Your task to perform on an android device: Go to Android settings Image 0: 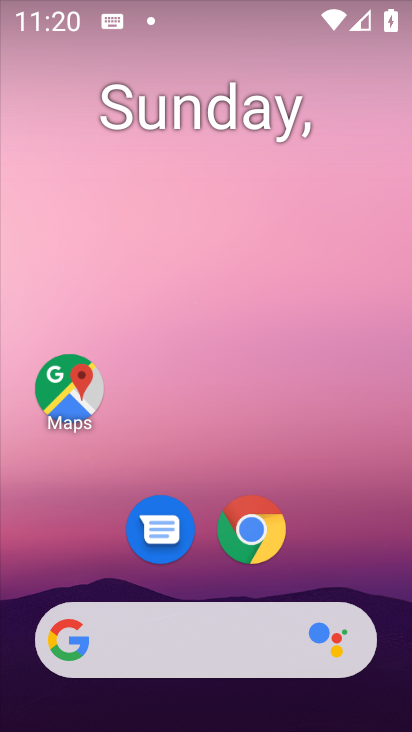
Step 0: drag from (351, 549) to (207, 76)
Your task to perform on an android device: Go to Android settings Image 1: 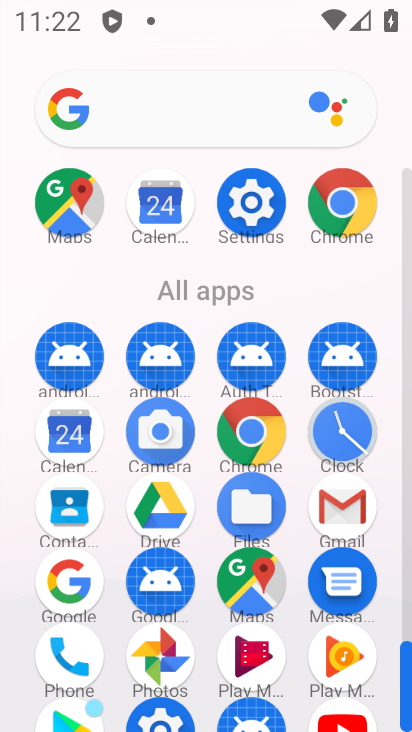
Step 1: click (245, 233)
Your task to perform on an android device: Go to Android settings Image 2: 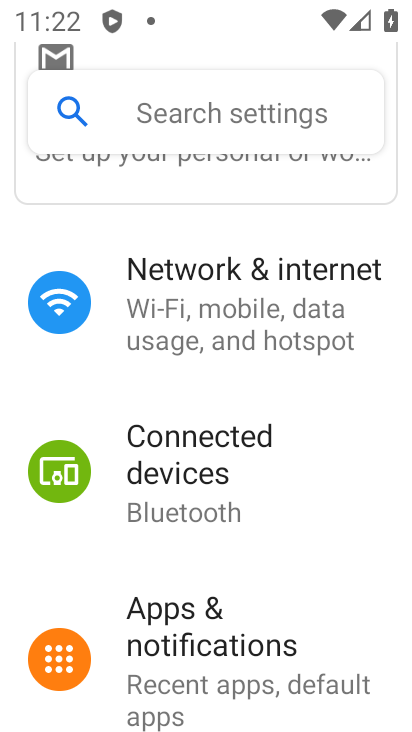
Step 2: drag from (222, 663) to (271, 137)
Your task to perform on an android device: Go to Android settings Image 3: 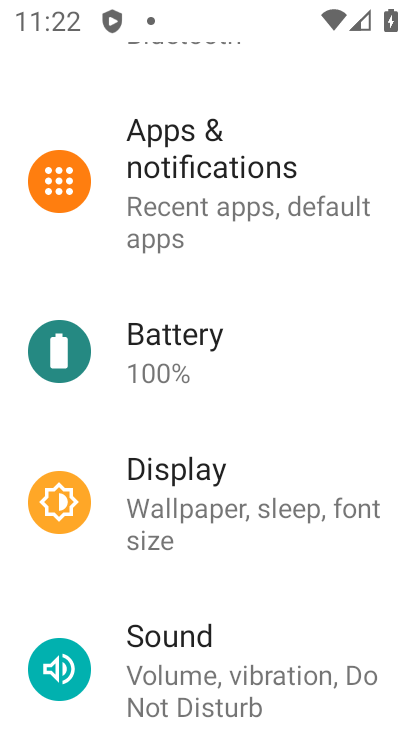
Step 3: drag from (285, 584) to (324, 91)
Your task to perform on an android device: Go to Android settings Image 4: 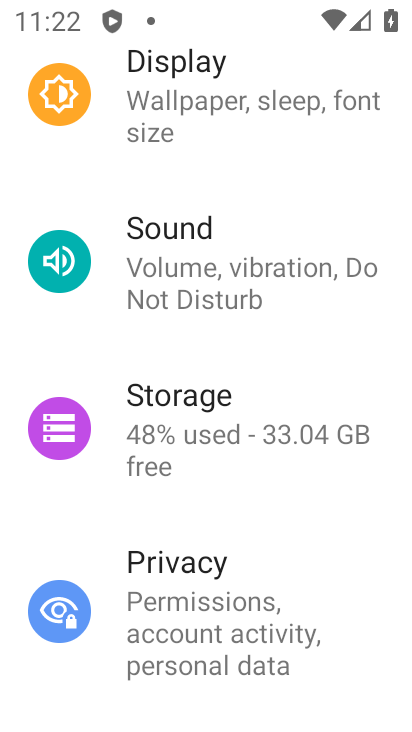
Step 4: drag from (202, 619) to (270, 90)
Your task to perform on an android device: Go to Android settings Image 5: 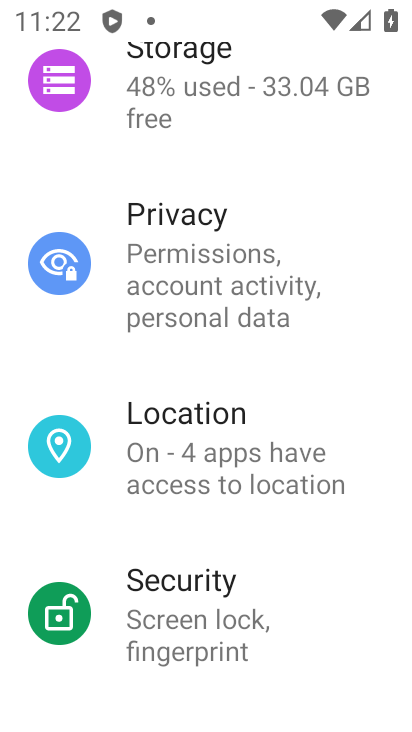
Step 5: drag from (212, 630) to (251, 10)
Your task to perform on an android device: Go to Android settings Image 6: 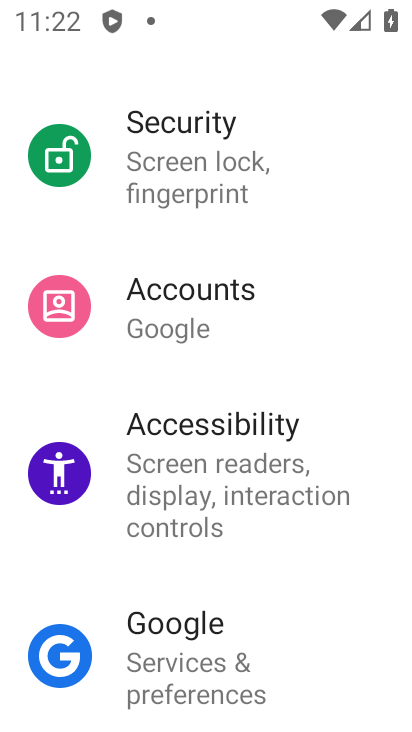
Step 6: drag from (196, 627) to (284, 82)
Your task to perform on an android device: Go to Android settings Image 7: 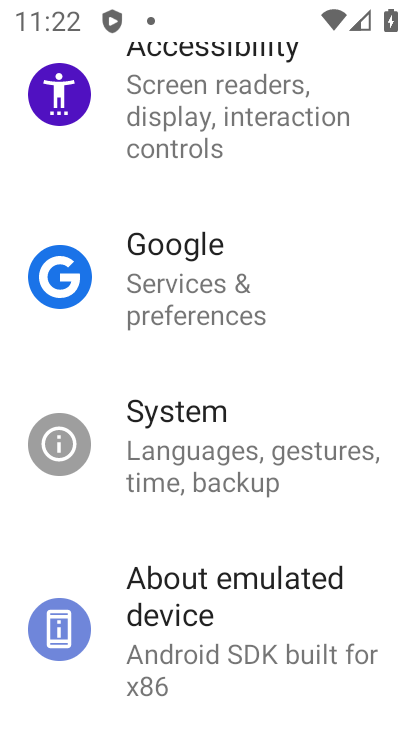
Step 7: click (250, 643)
Your task to perform on an android device: Go to Android settings Image 8: 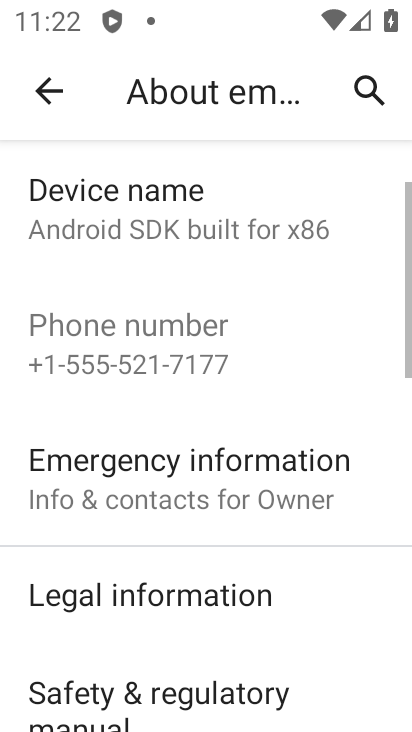
Step 8: drag from (164, 618) to (215, 213)
Your task to perform on an android device: Go to Android settings Image 9: 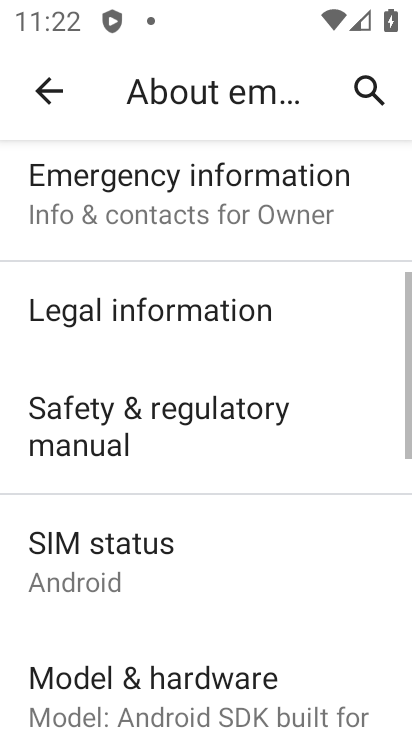
Step 9: drag from (170, 604) to (259, 194)
Your task to perform on an android device: Go to Android settings Image 10: 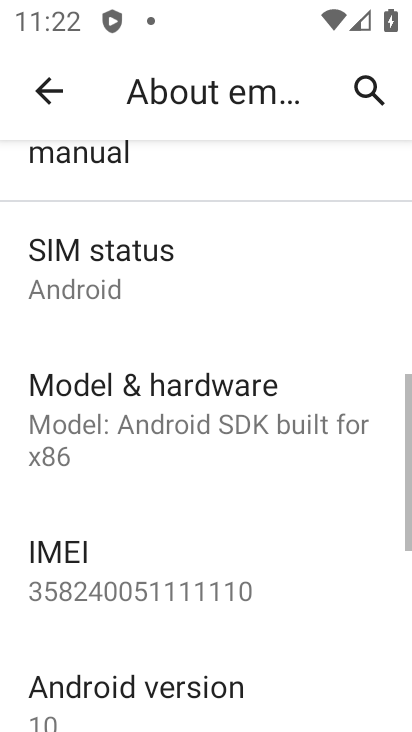
Step 10: click (154, 701)
Your task to perform on an android device: Go to Android settings Image 11: 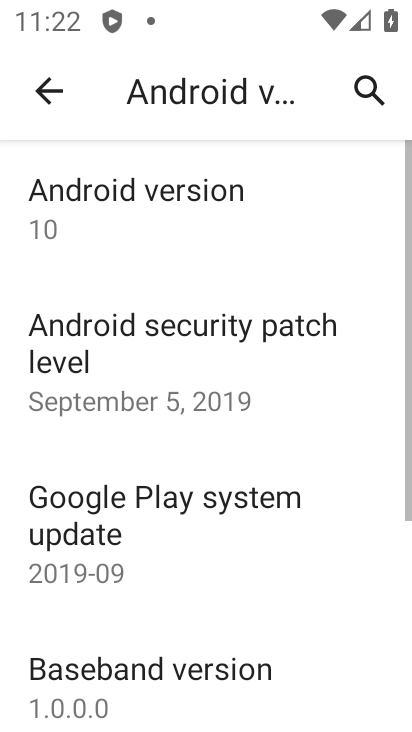
Step 11: click (163, 227)
Your task to perform on an android device: Go to Android settings Image 12: 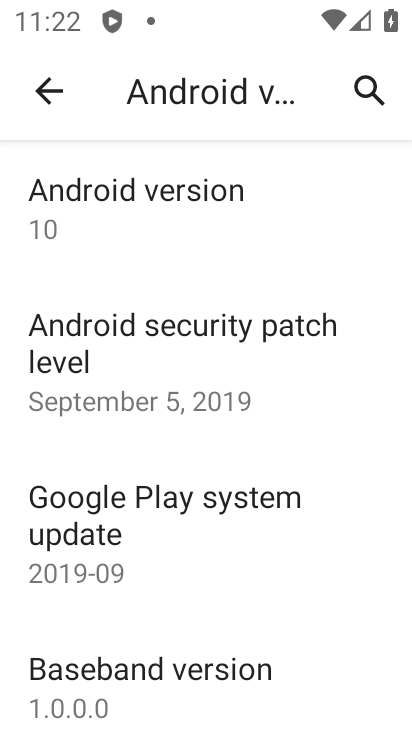
Step 12: task complete